Your task to perform on an android device: clear history in the chrome app Image 0: 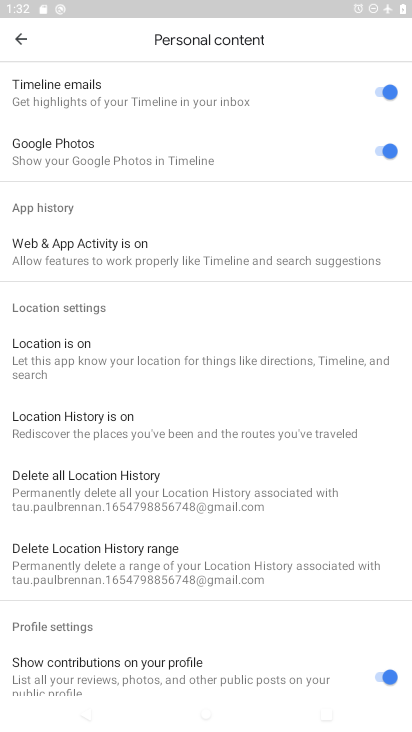
Step 0: press home button
Your task to perform on an android device: clear history in the chrome app Image 1: 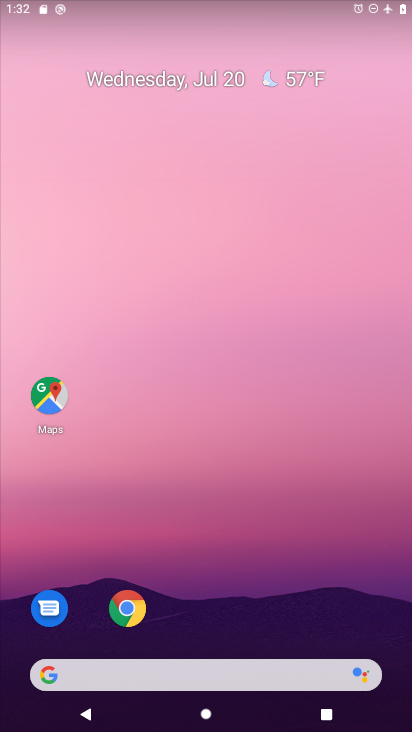
Step 1: click (133, 595)
Your task to perform on an android device: clear history in the chrome app Image 2: 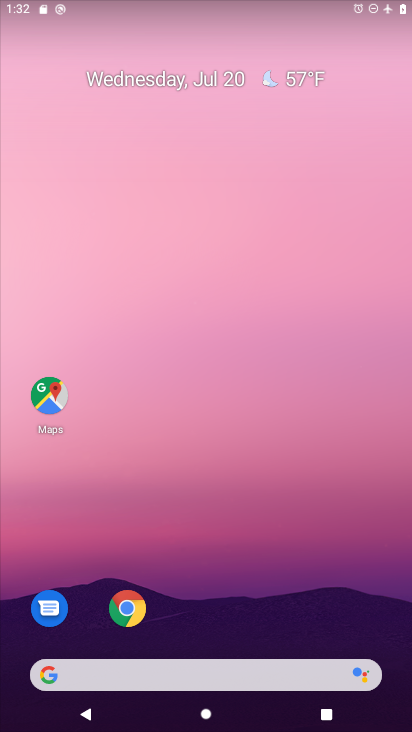
Step 2: click (133, 595)
Your task to perform on an android device: clear history in the chrome app Image 3: 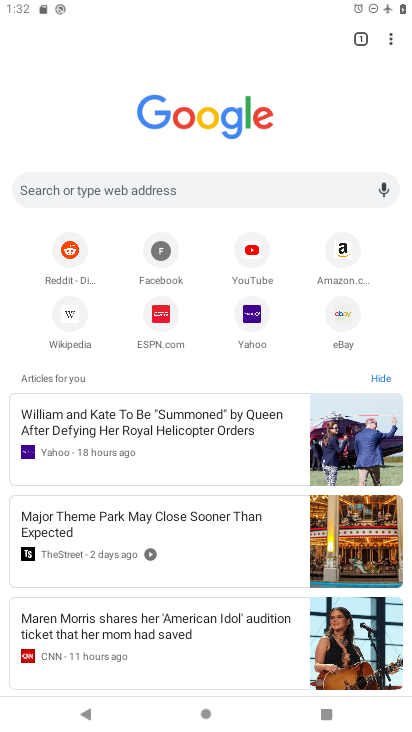
Step 3: click (389, 37)
Your task to perform on an android device: clear history in the chrome app Image 4: 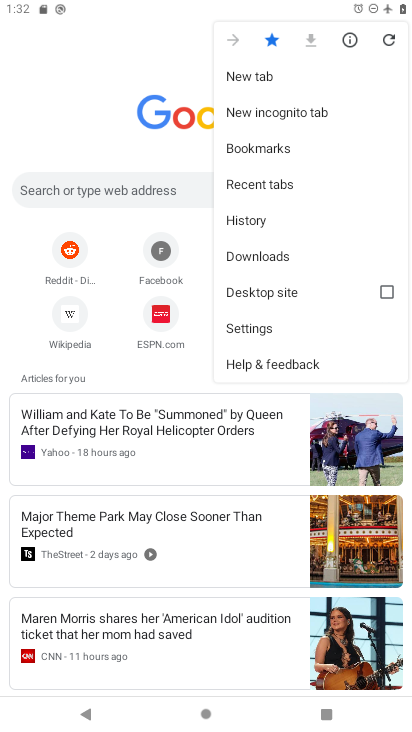
Step 4: click (282, 222)
Your task to perform on an android device: clear history in the chrome app Image 5: 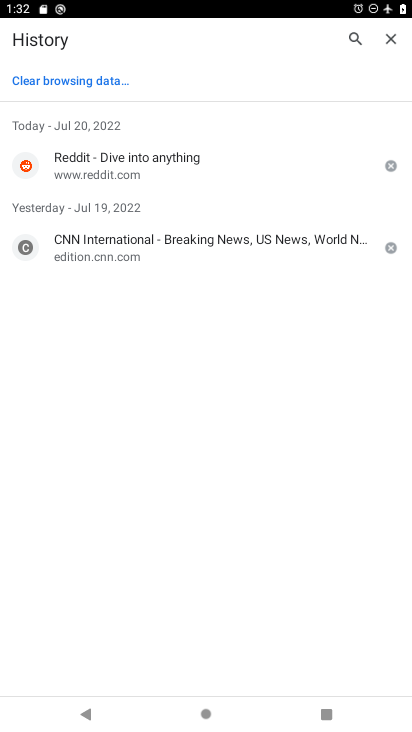
Step 5: click (37, 82)
Your task to perform on an android device: clear history in the chrome app Image 6: 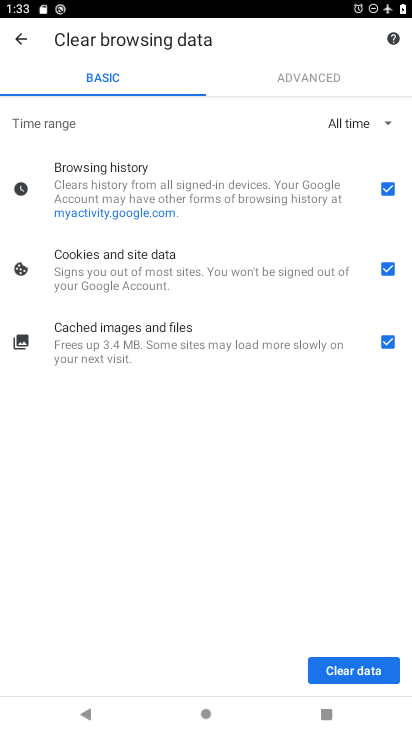
Step 6: click (338, 679)
Your task to perform on an android device: clear history in the chrome app Image 7: 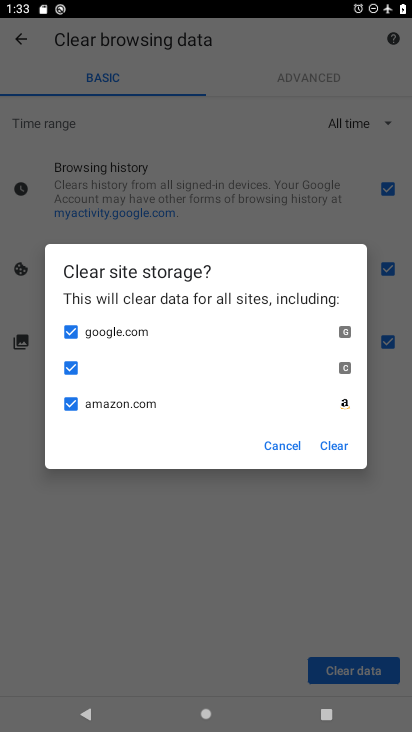
Step 7: click (338, 442)
Your task to perform on an android device: clear history in the chrome app Image 8: 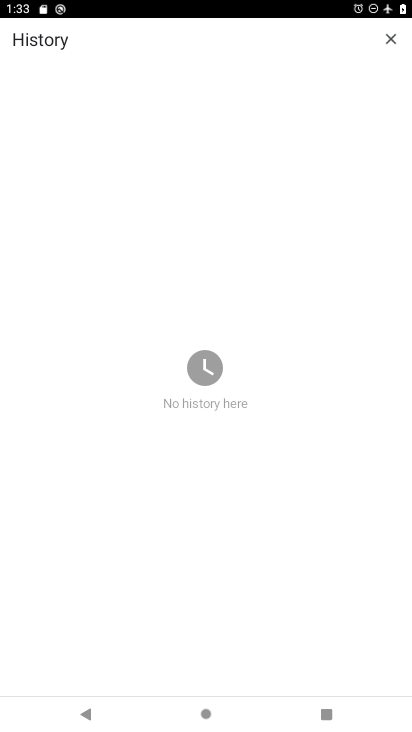
Step 8: task complete